Your task to perform on an android device: Open the calendar app, open the side menu, and click the "Day" option Image 0: 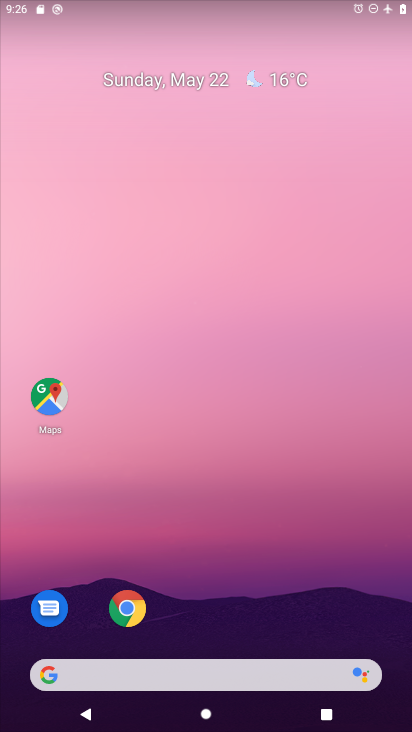
Step 0: drag from (225, 725) to (198, 145)
Your task to perform on an android device: Open the calendar app, open the side menu, and click the "Day" option Image 1: 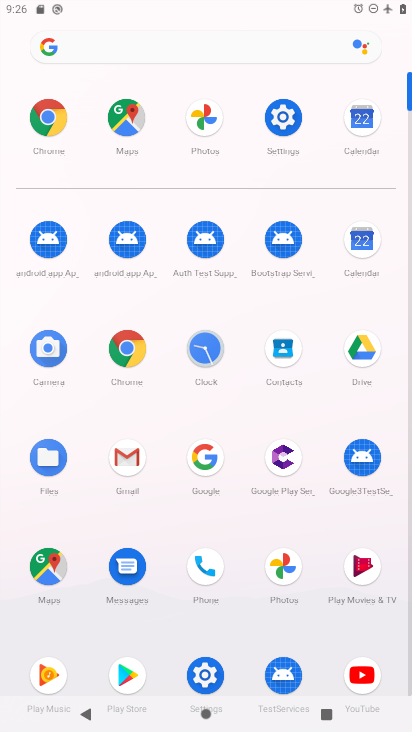
Step 1: click (356, 240)
Your task to perform on an android device: Open the calendar app, open the side menu, and click the "Day" option Image 2: 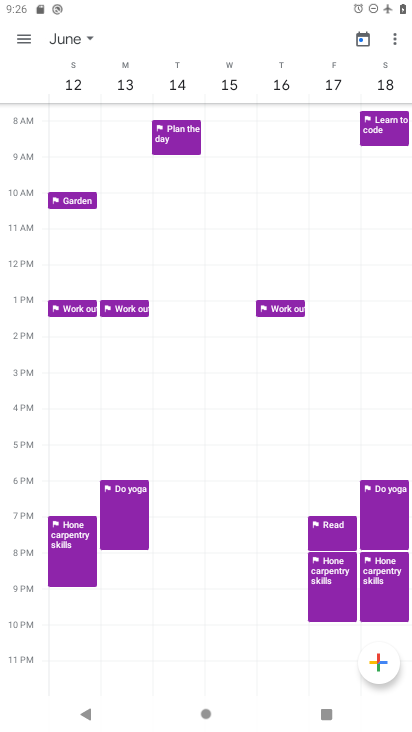
Step 2: click (21, 37)
Your task to perform on an android device: Open the calendar app, open the side menu, and click the "Day" option Image 3: 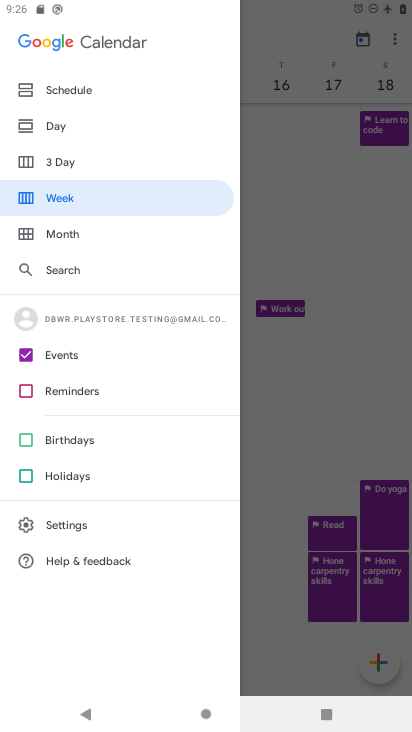
Step 3: click (54, 127)
Your task to perform on an android device: Open the calendar app, open the side menu, and click the "Day" option Image 4: 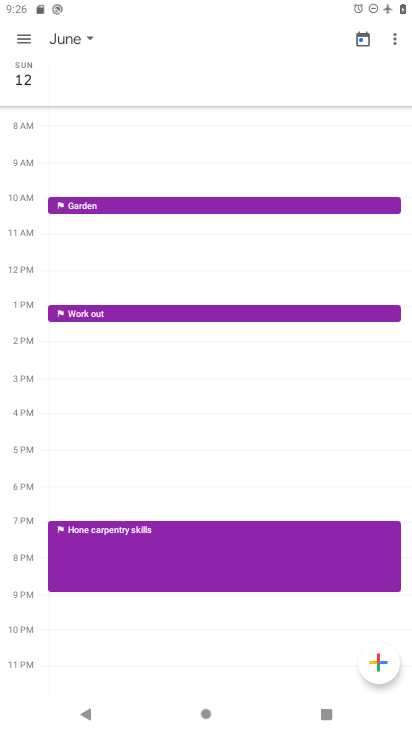
Step 4: task complete